Your task to perform on an android device: Find coffee shops on Maps Image 0: 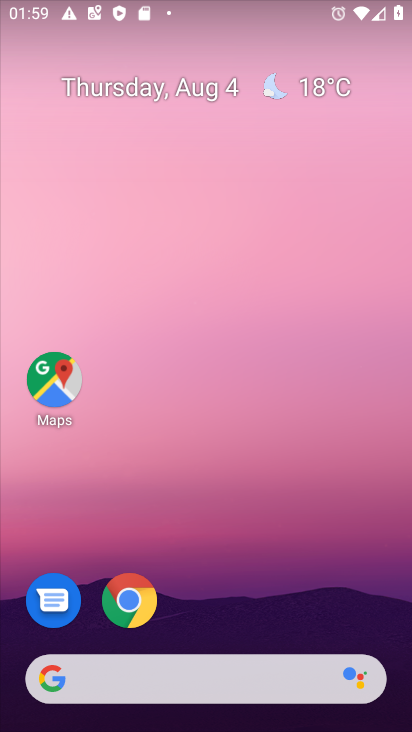
Step 0: press home button
Your task to perform on an android device: Find coffee shops on Maps Image 1: 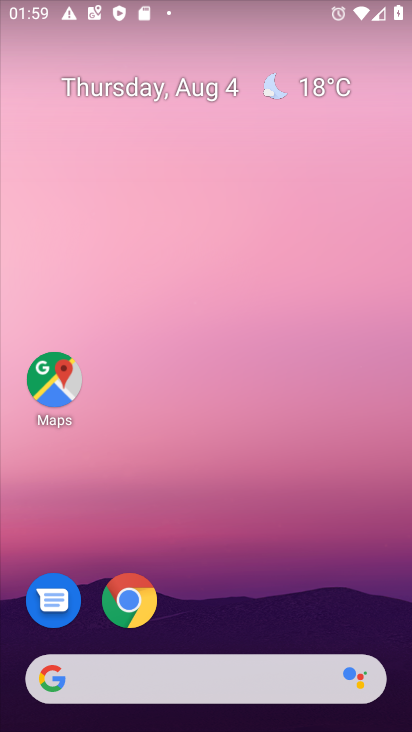
Step 1: click (57, 377)
Your task to perform on an android device: Find coffee shops on Maps Image 2: 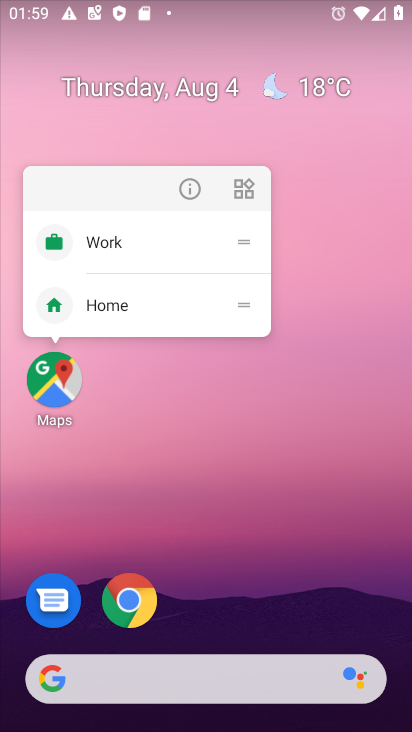
Step 2: click (52, 382)
Your task to perform on an android device: Find coffee shops on Maps Image 3: 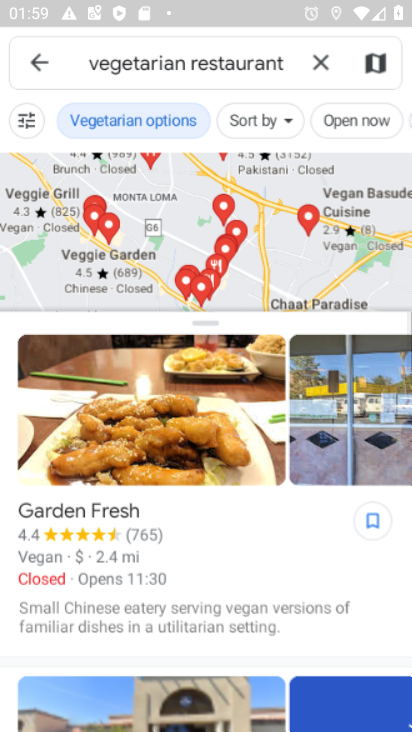
Step 3: click (318, 59)
Your task to perform on an android device: Find coffee shops on Maps Image 4: 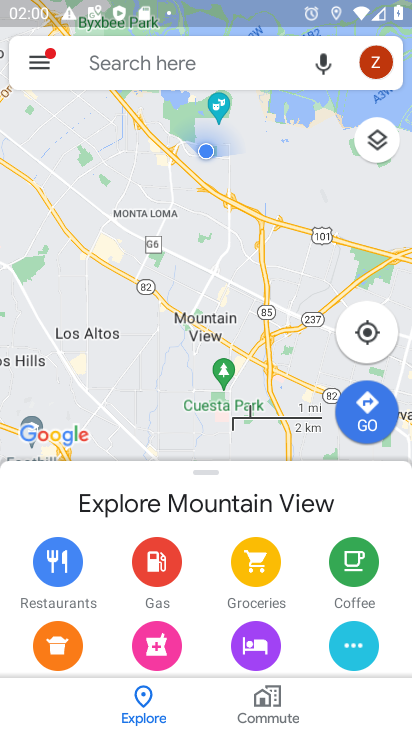
Step 4: click (145, 62)
Your task to perform on an android device: Find coffee shops on Maps Image 5: 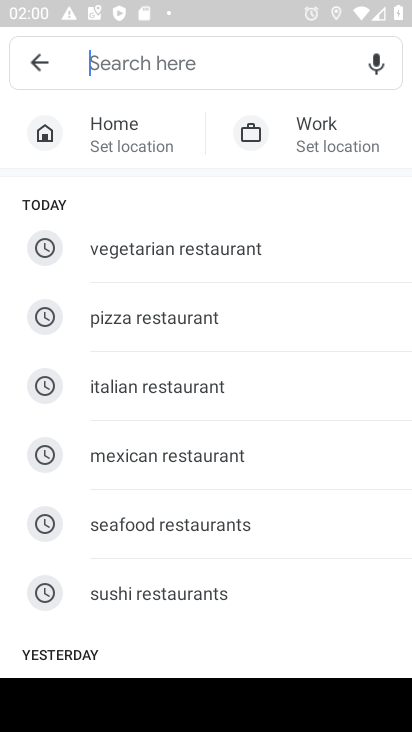
Step 5: drag from (229, 620) to (303, 279)
Your task to perform on an android device: Find coffee shops on Maps Image 6: 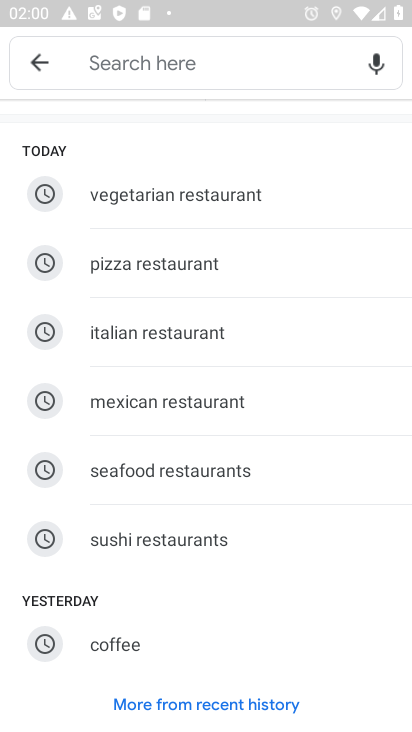
Step 6: click (114, 644)
Your task to perform on an android device: Find coffee shops on Maps Image 7: 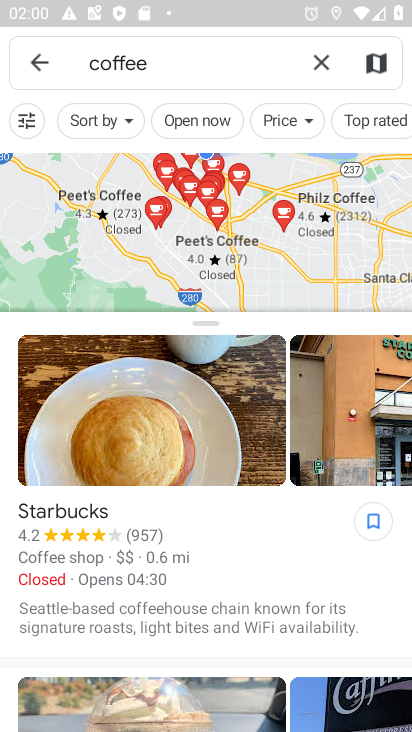
Step 7: task complete